Your task to perform on an android device: Open the Play Movies app and select the watchlist tab. Image 0: 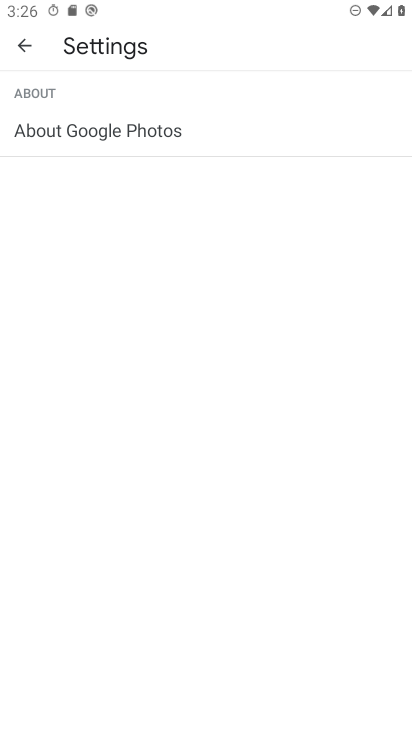
Step 0: drag from (309, 647) to (187, 58)
Your task to perform on an android device: Open the Play Movies app and select the watchlist tab. Image 1: 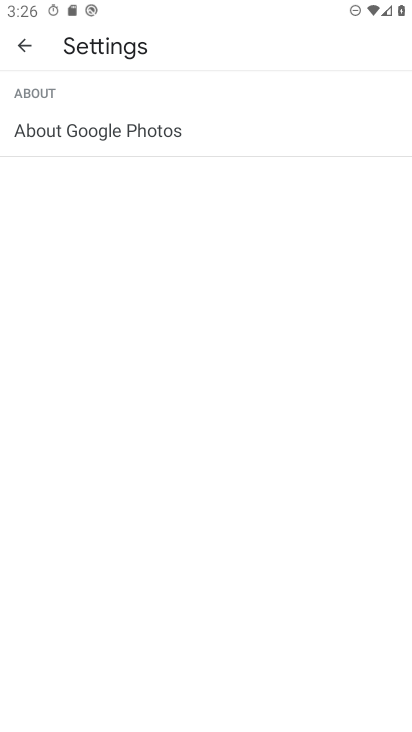
Step 1: click (24, 40)
Your task to perform on an android device: Open the Play Movies app and select the watchlist tab. Image 2: 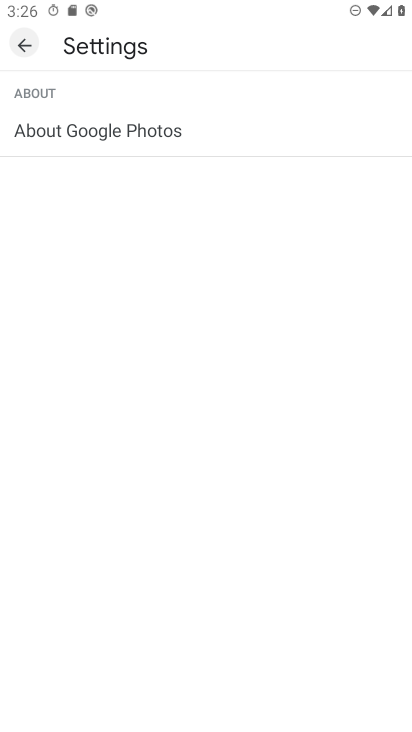
Step 2: click (23, 41)
Your task to perform on an android device: Open the Play Movies app and select the watchlist tab. Image 3: 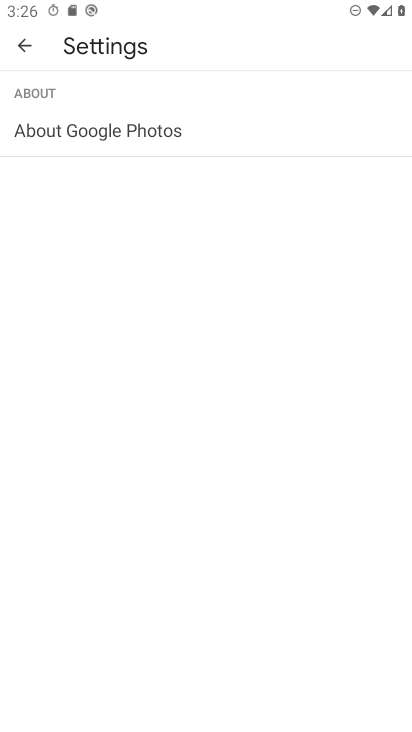
Step 3: click (23, 41)
Your task to perform on an android device: Open the Play Movies app and select the watchlist tab. Image 4: 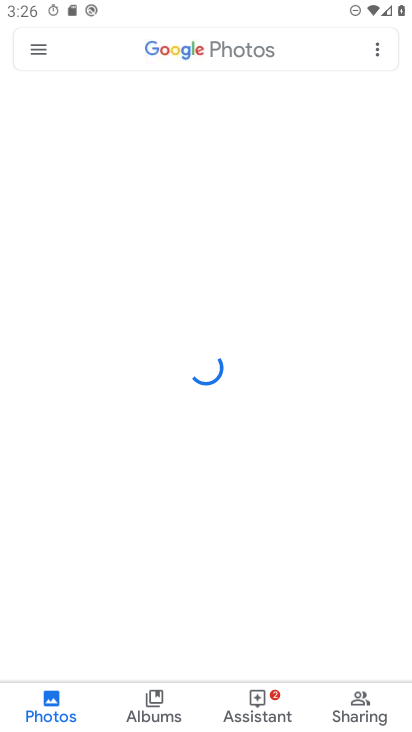
Step 4: drag from (200, 504) to (175, 137)
Your task to perform on an android device: Open the Play Movies app and select the watchlist tab. Image 5: 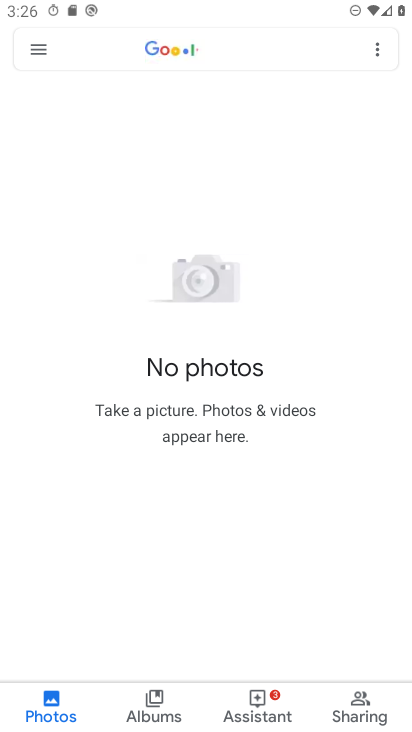
Step 5: click (38, 52)
Your task to perform on an android device: Open the Play Movies app and select the watchlist tab. Image 6: 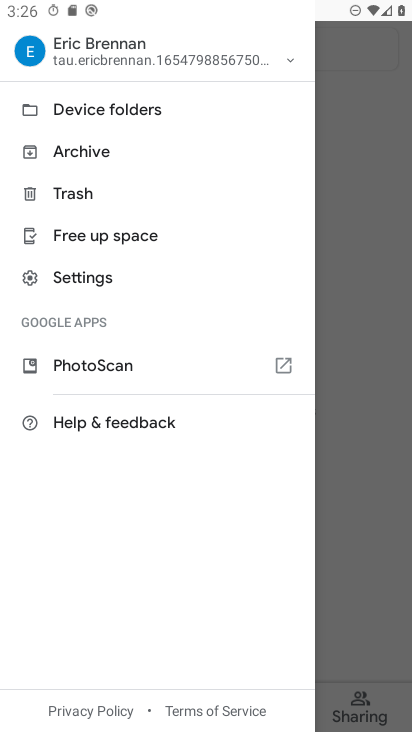
Step 6: click (333, 356)
Your task to perform on an android device: Open the Play Movies app and select the watchlist tab. Image 7: 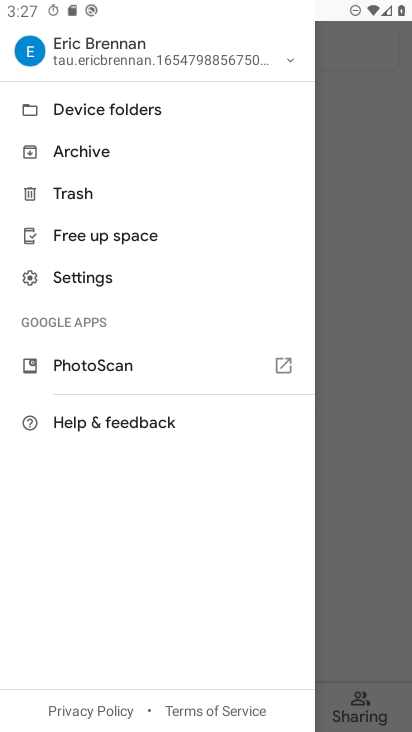
Step 7: click (335, 356)
Your task to perform on an android device: Open the Play Movies app and select the watchlist tab. Image 8: 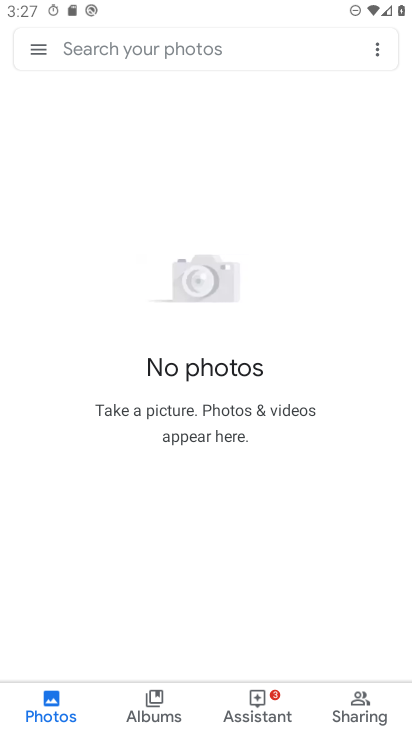
Step 8: press back button
Your task to perform on an android device: Open the Play Movies app and select the watchlist tab. Image 9: 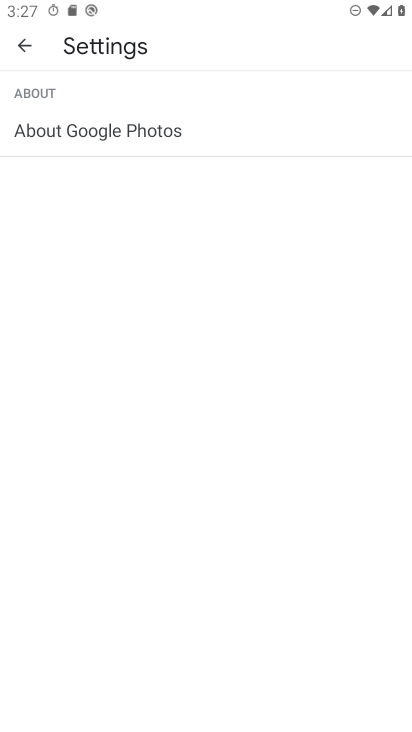
Step 9: click (15, 44)
Your task to perform on an android device: Open the Play Movies app and select the watchlist tab. Image 10: 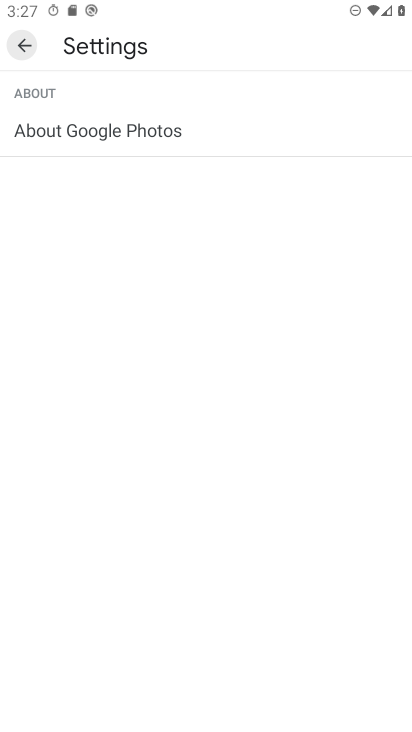
Step 10: click (14, 46)
Your task to perform on an android device: Open the Play Movies app and select the watchlist tab. Image 11: 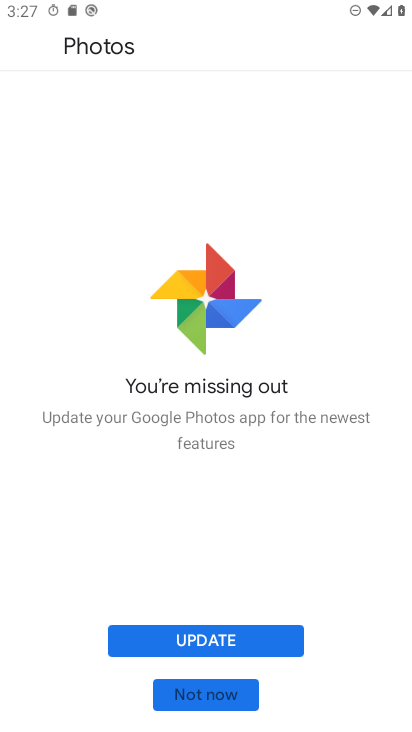
Step 11: press home button
Your task to perform on an android device: Open the Play Movies app and select the watchlist tab. Image 12: 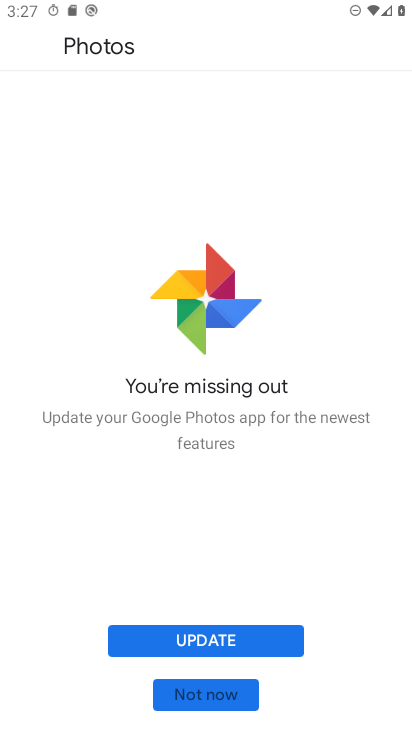
Step 12: press home button
Your task to perform on an android device: Open the Play Movies app and select the watchlist tab. Image 13: 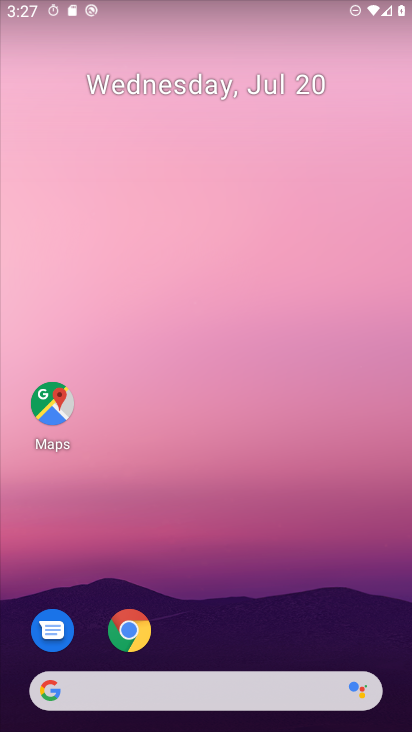
Step 13: drag from (225, 404) to (165, 81)
Your task to perform on an android device: Open the Play Movies app and select the watchlist tab. Image 14: 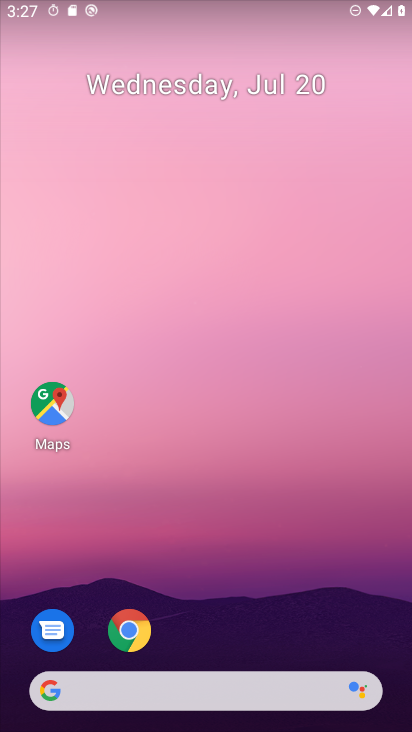
Step 14: drag from (262, 568) to (205, 140)
Your task to perform on an android device: Open the Play Movies app and select the watchlist tab. Image 15: 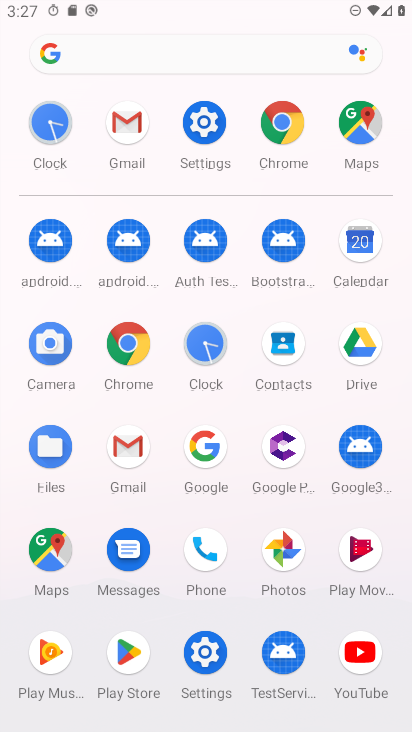
Step 15: click (347, 551)
Your task to perform on an android device: Open the Play Movies app and select the watchlist tab. Image 16: 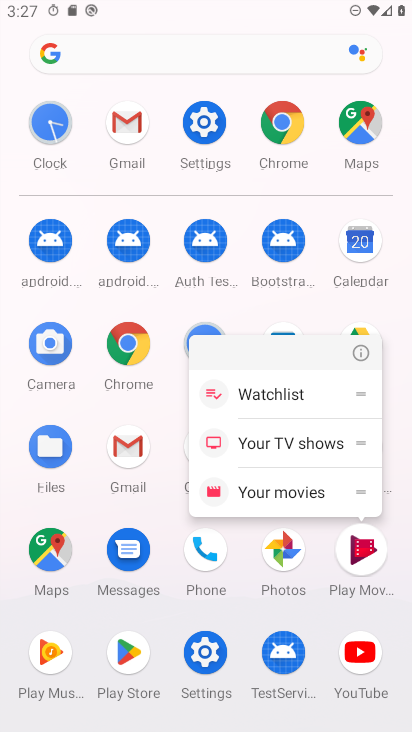
Step 16: click (350, 551)
Your task to perform on an android device: Open the Play Movies app and select the watchlist tab. Image 17: 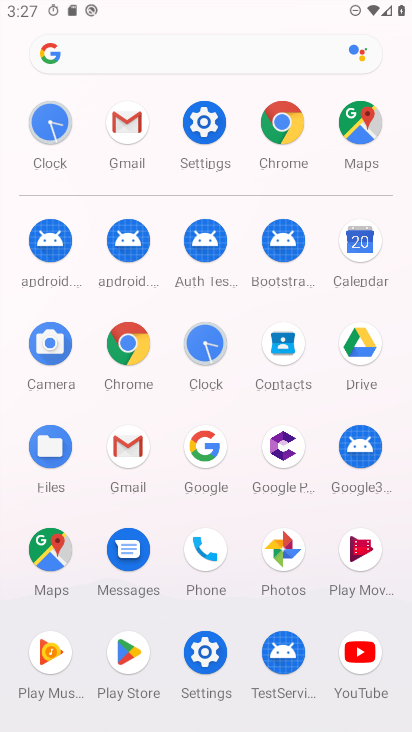
Step 17: click (371, 542)
Your task to perform on an android device: Open the Play Movies app and select the watchlist tab. Image 18: 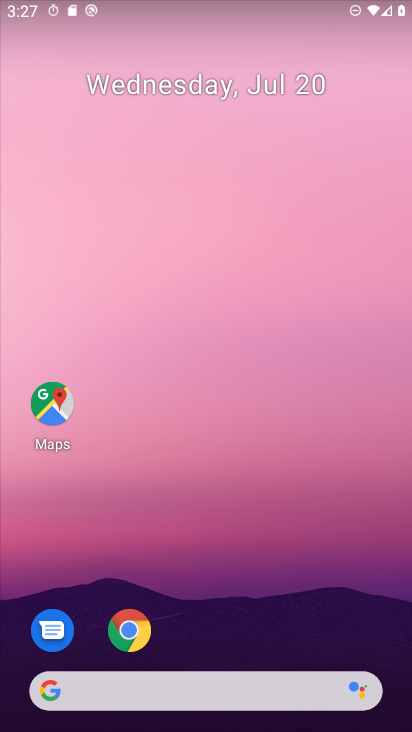
Step 18: click (371, 545)
Your task to perform on an android device: Open the Play Movies app and select the watchlist tab. Image 19: 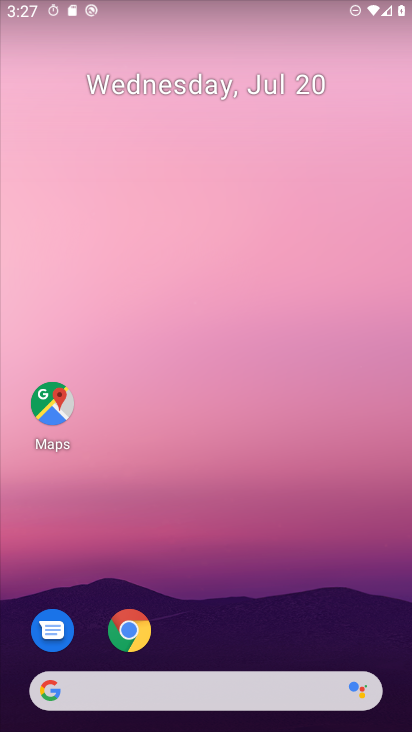
Step 19: drag from (220, 564) to (225, 44)
Your task to perform on an android device: Open the Play Movies app and select the watchlist tab. Image 20: 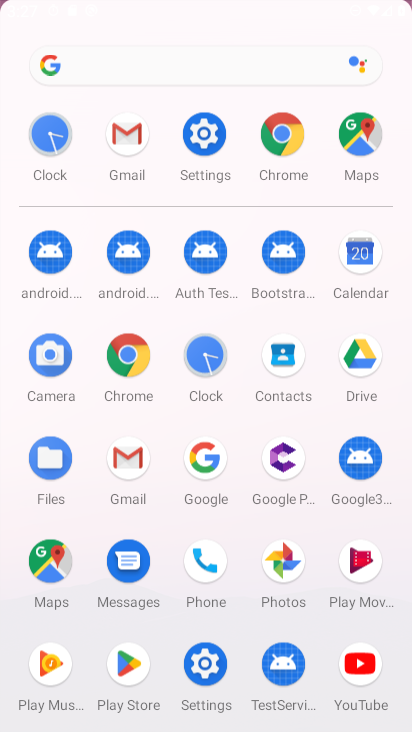
Step 20: drag from (210, 410) to (163, 152)
Your task to perform on an android device: Open the Play Movies app and select the watchlist tab. Image 21: 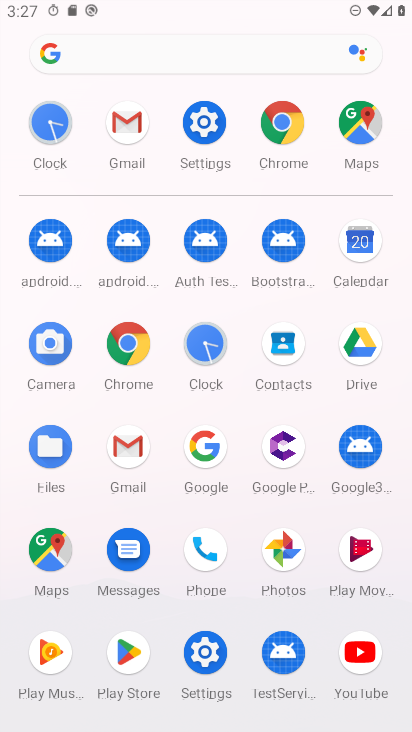
Step 21: click (360, 659)
Your task to perform on an android device: Open the Play Movies app and select the watchlist tab. Image 22: 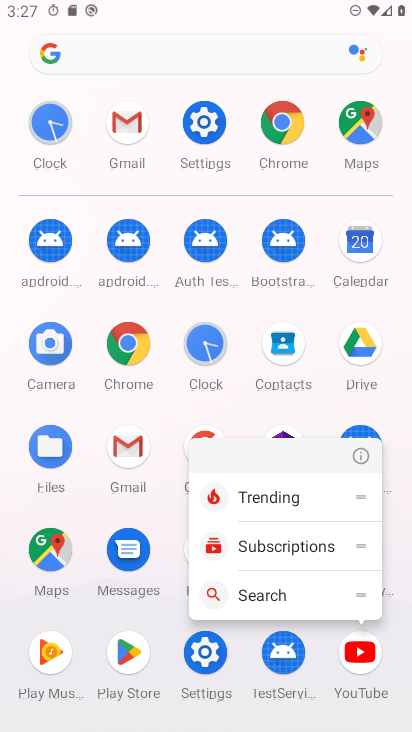
Step 22: click (225, 401)
Your task to perform on an android device: Open the Play Movies app and select the watchlist tab. Image 23: 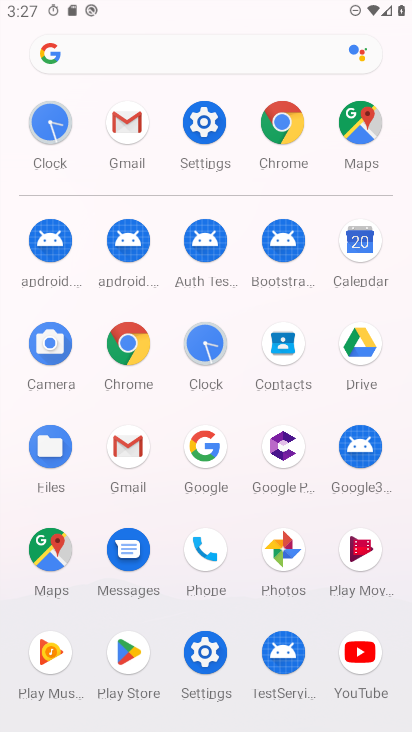
Step 23: click (359, 553)
Your task to perform on an android device: Open the Play Movies app and select the watchlist tab. Image 24: 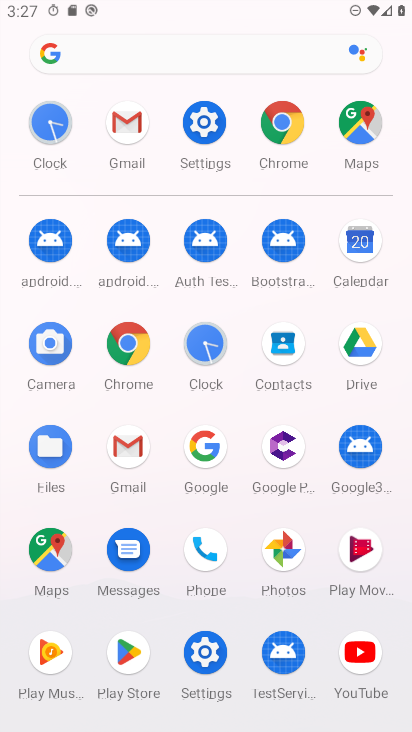
Step 24: click (352, 557)
Your task to perform on an android device: Open the Play Movies app and select the watchlist tab. Image 25: 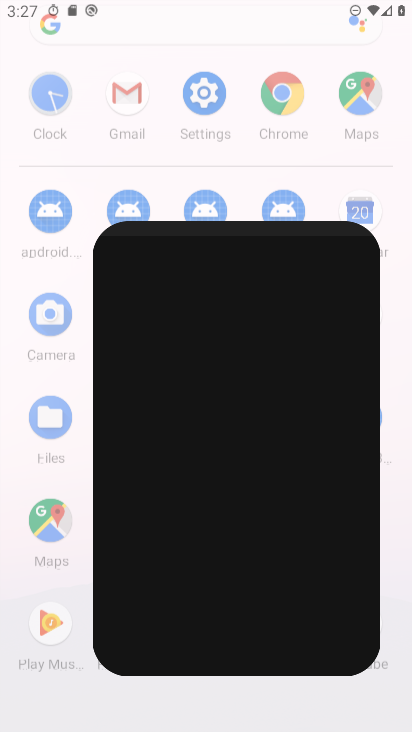
Step 25: click (352, 557)
Your task to perform on an android device: Open the Play Movies app and select the watchlist tab. Image 26: 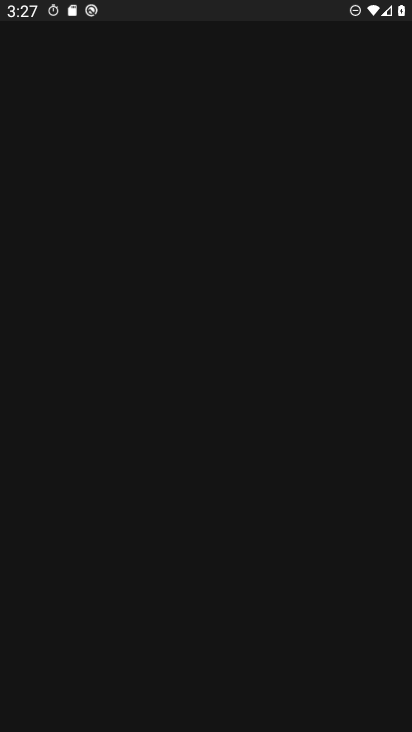
Step 26: click (352, 557)
Your task to perform on an android device: Open the Play Movies app and select the watchlist tab. Image 27: 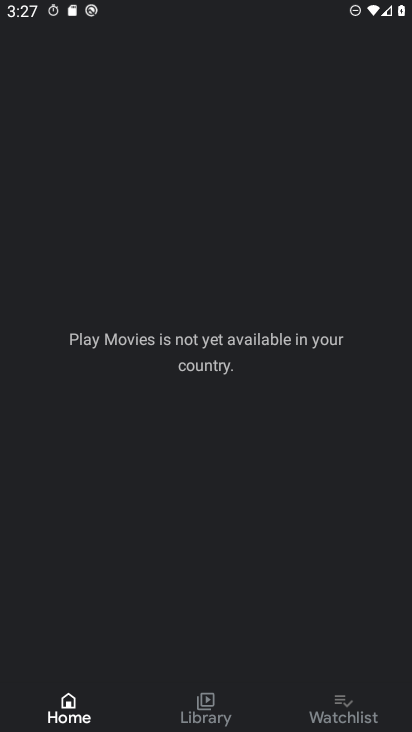
Step 27: click (327, 702)
Your task to perform on an android device: Open the Play Movies app and select the watchlist tab. Image 28: 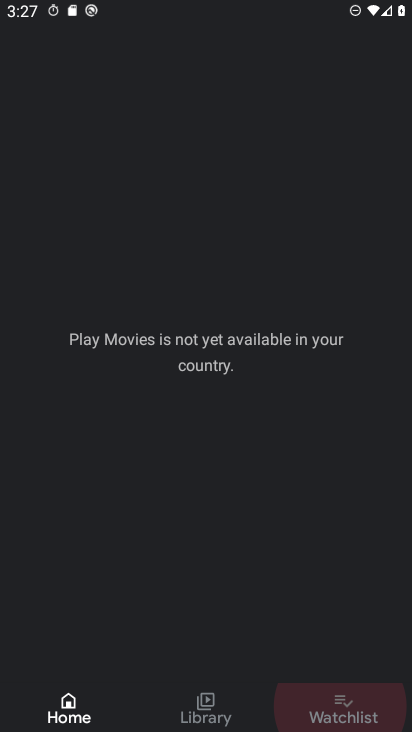
Step 28: click (335, 715)
Your task to perform on an android device: Open the Play Movies app and select the watchlist tab. Image 29: 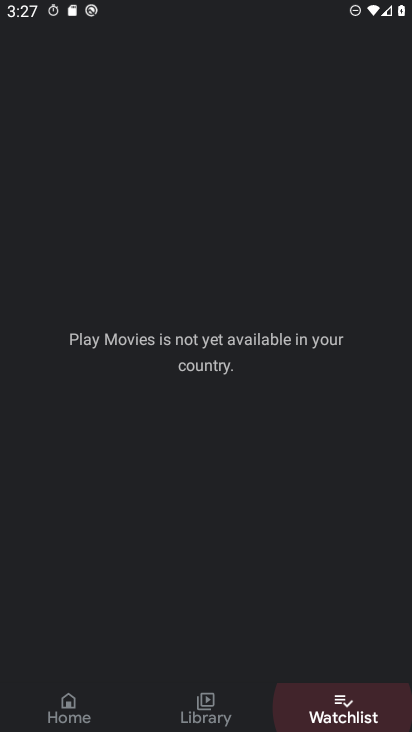
Step 29: click (335, 714)
Your task to perform on an android device: Open the Play Movies app and select the watchlist tab. Image 30: 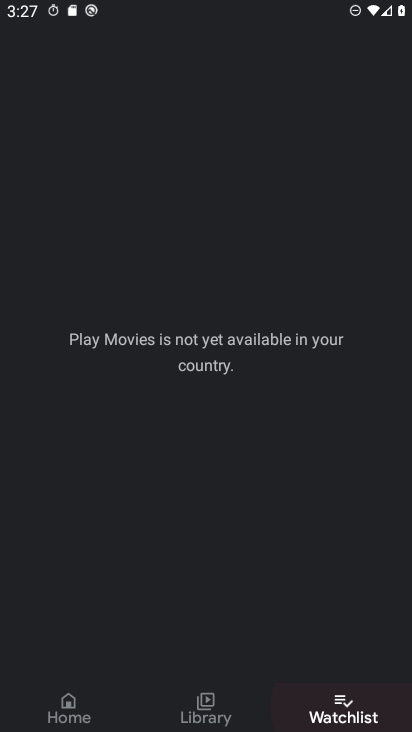
Step 30: click (339, 702)
Your task to perform on an android device: Open the Play Movies app and select the watchlist tab. Image 31: 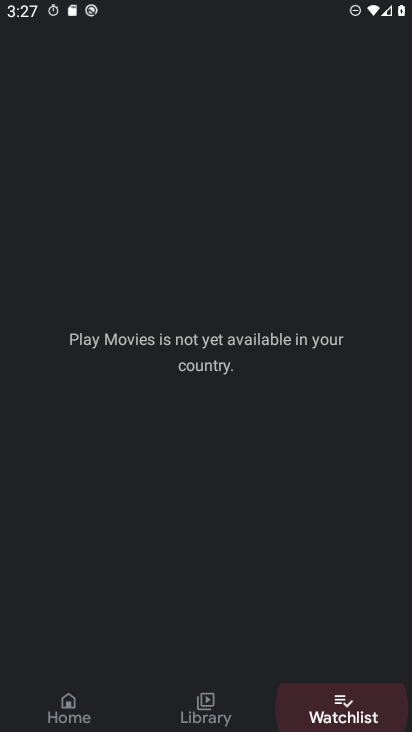
Step 31: click (344, 699)
Your task to perform on an android device: Open the Play Movies app and select the watchlist tab. Image 32: 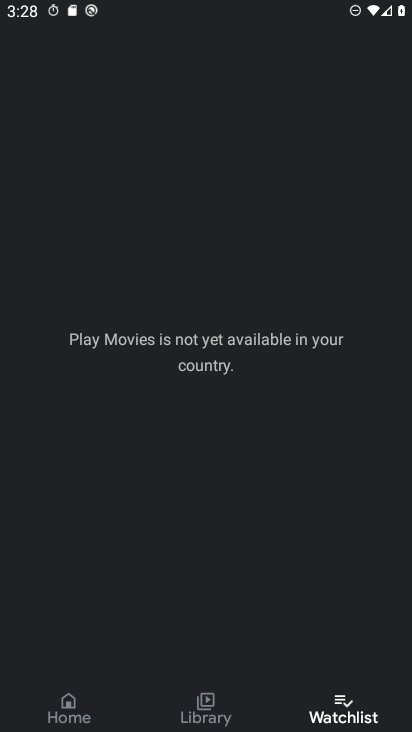
Step 32: click (326, 699)
Your task to perform on an android device: Open the Play Movies app and select the watchlist tab. Image 33: 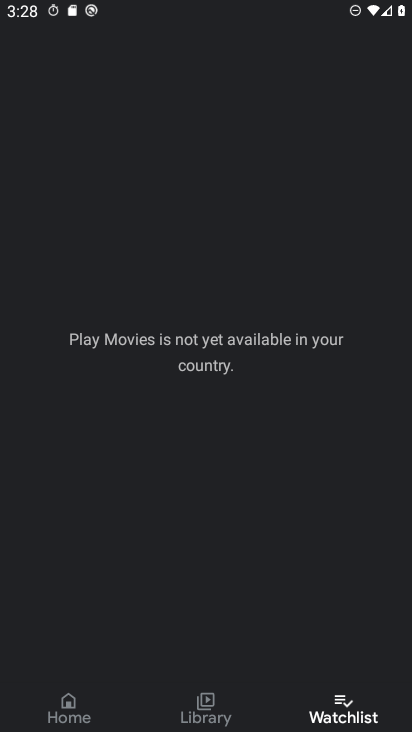
Step 33: task complete